Your task to perform on an android device: What is the news today? Image 0: 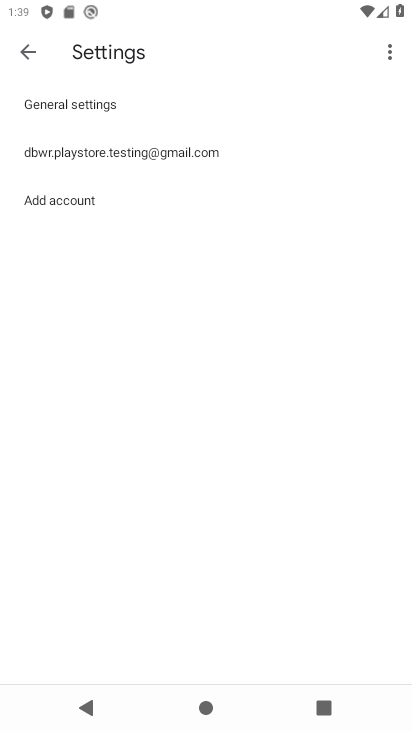
Step 0: press home button
Your task to perform on an android device: What is the news today? Image 1: 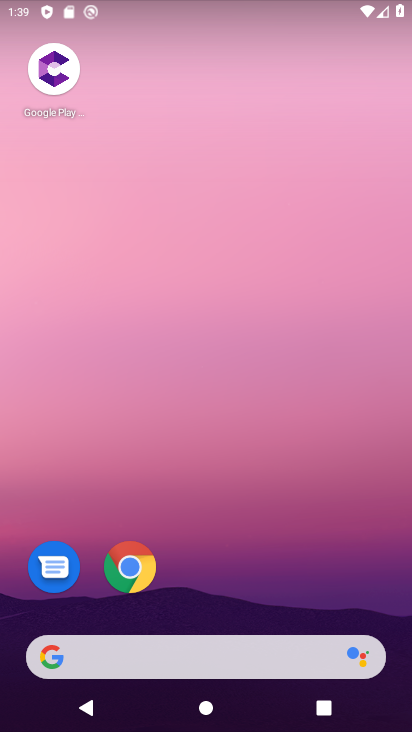
Step 1: drag from (219, 595) to (289, 173)
Your task to perform on an android device: What is the news today? Image 2: 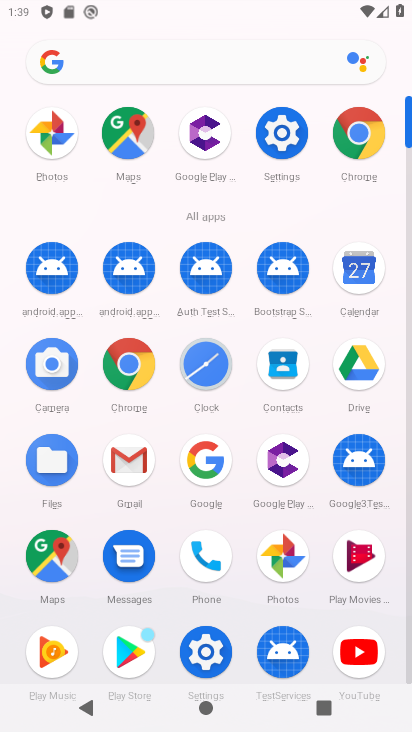
Step 2: click (367, 149)
Your task to perform on an android device: What is the news today? Image 3: 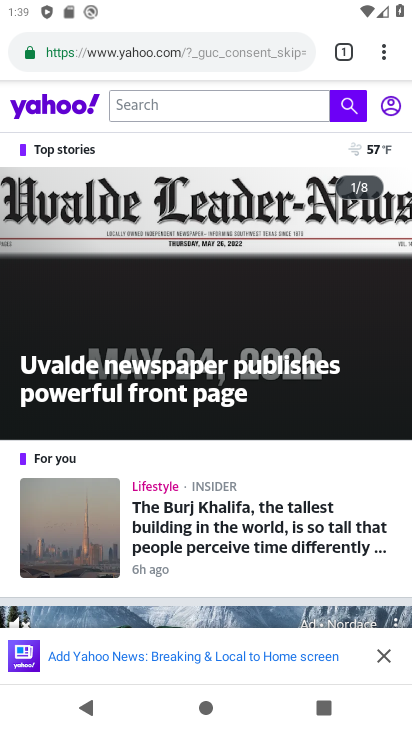
Step 3: click (261, 51)
Your task to perform on an android device: What is the news today? Image 4: 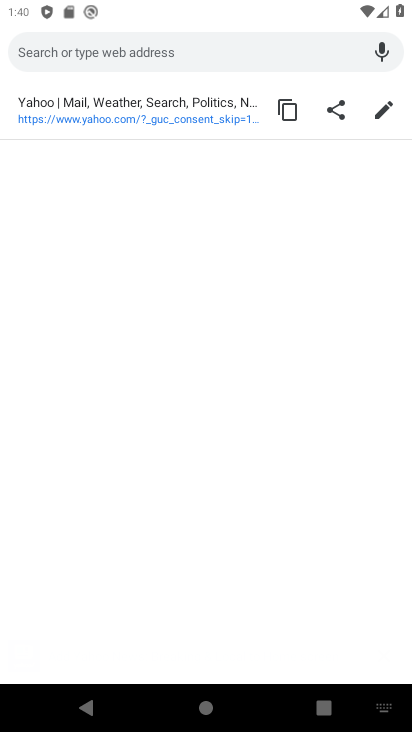
Step 4: type "What is the news today?"
Your task to perform on an android device: What is the news today? Image 5: 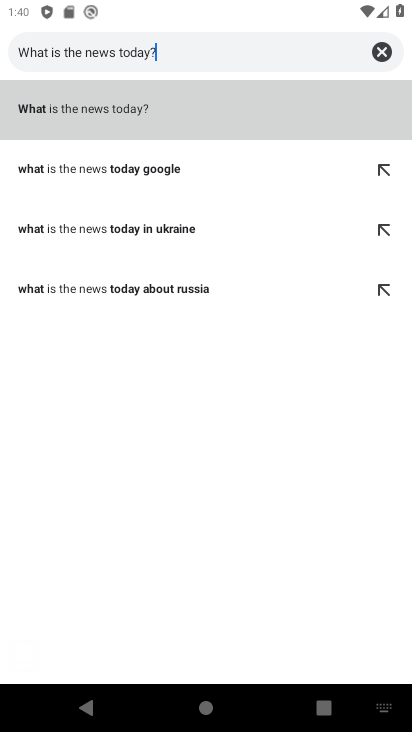
Step 5: click (84, 104)
Your task to perform on an android device: What is the news today? Image 6: 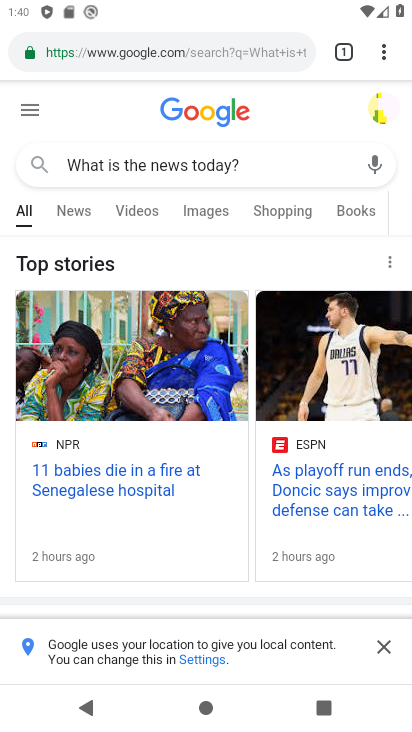
Step 6: click (387, 646)
Your task to perform on an android device: What is the news today? Image 7: 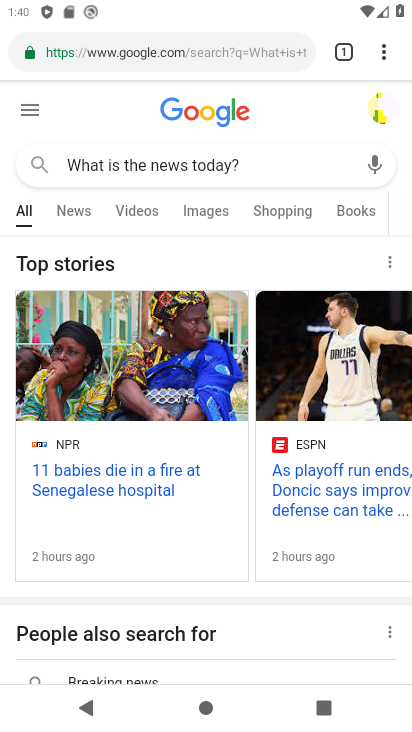
Step 7: task complete